Your task to perform on an android device: What is the recent news? Image 0: 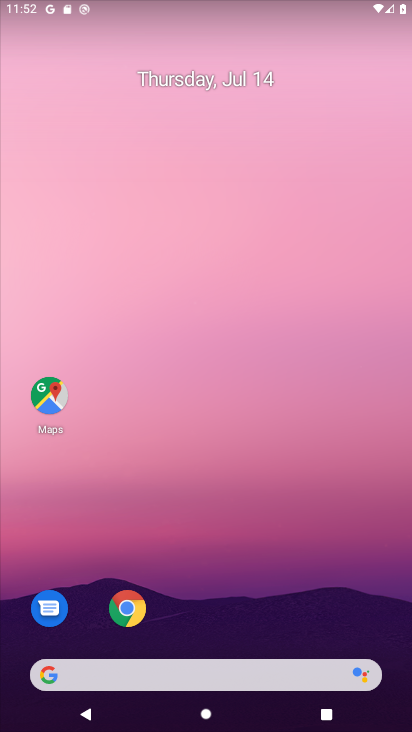
Step 0: click (23, 296)
Your task to perform on an android device: What is the recent news? Image 1: 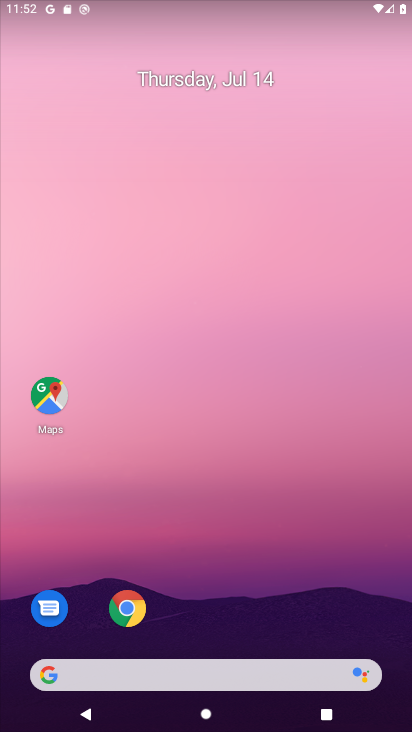
Step 1: task complete